Your task to perform on an android device: Is it going to rain today? Image 0: 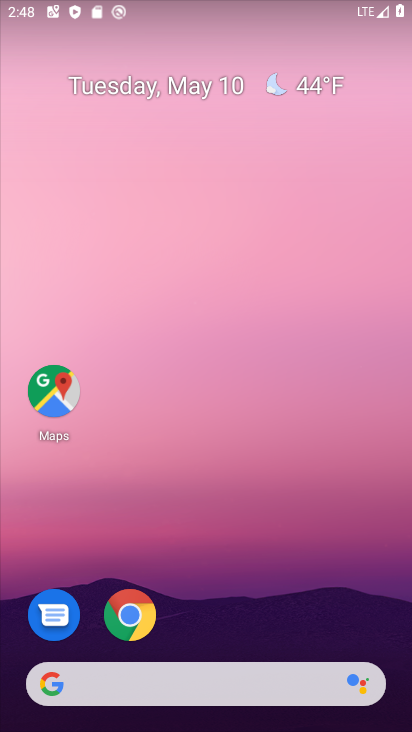
Step 0: click (150, 613)
Your task to perform on an android device: Is it going to rain today? Image 1: 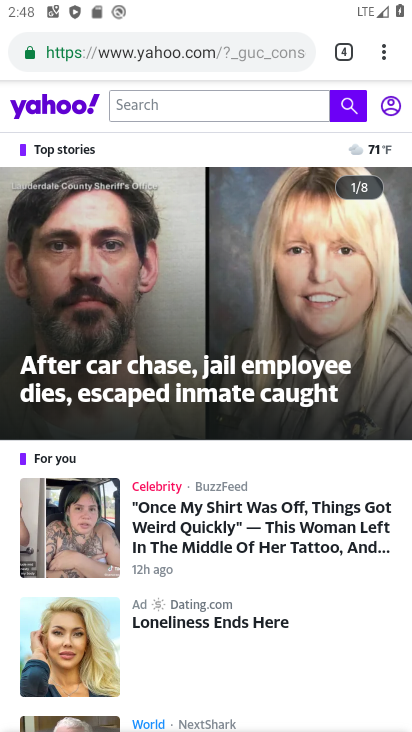
Step 1: click (222, 60)
Your task to perform on an android device: Is it going to rain today? Image 2: 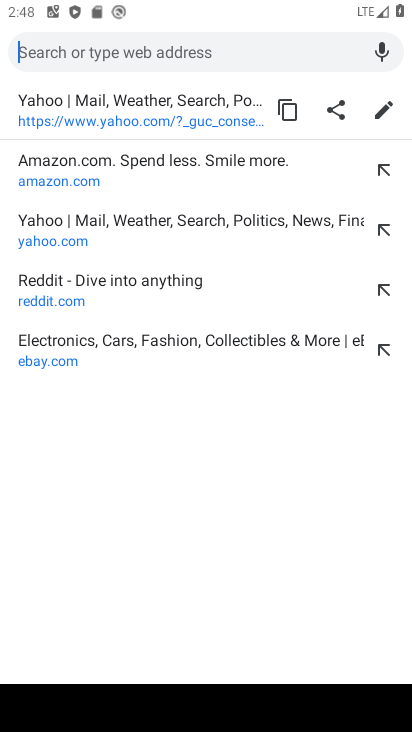
Step 2: type "Is it going to rain today?"
Your task to perform on an android device: Is it going to rain today? Image 3: 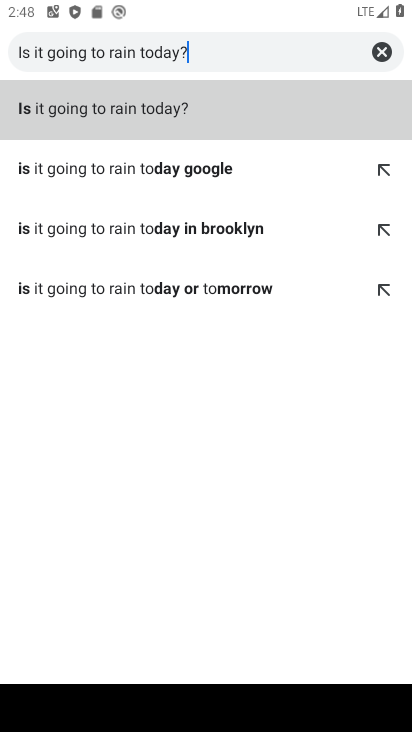
Step 3: click (162, 122)
Your task to perform on an android device: Is it going to rain today? Image 4: 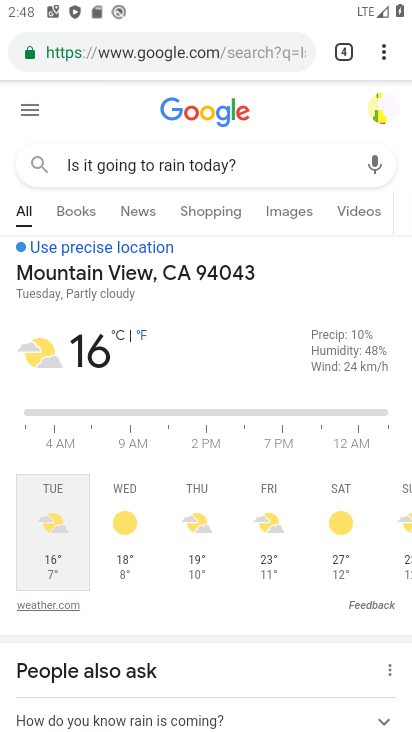
Step 4: task complete